Your task to perform on an android device: turn on location history Image 0: 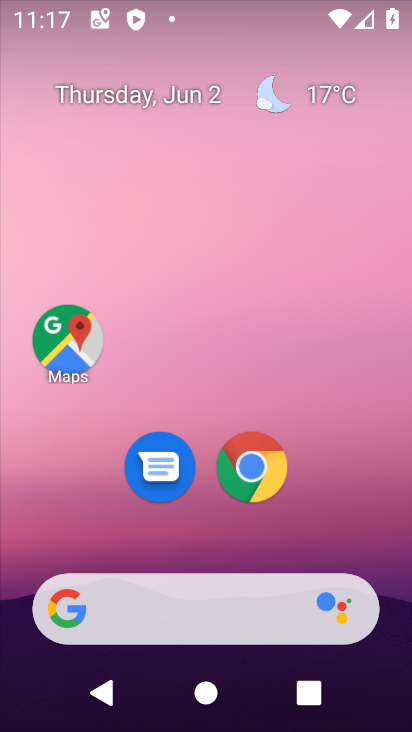
Step 0: drag from (150, 539) to (164, 188)
Your task to perform on an android device: turn on location history Image 1: 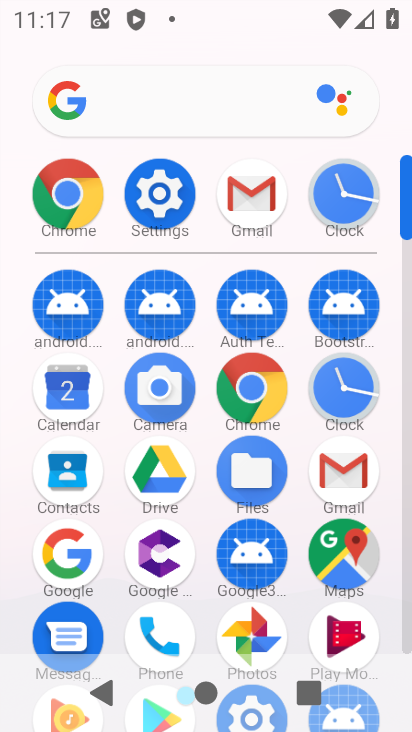
Step 1: click (154, 202)
Your task to perform on an android device: turn on location history Image 2: 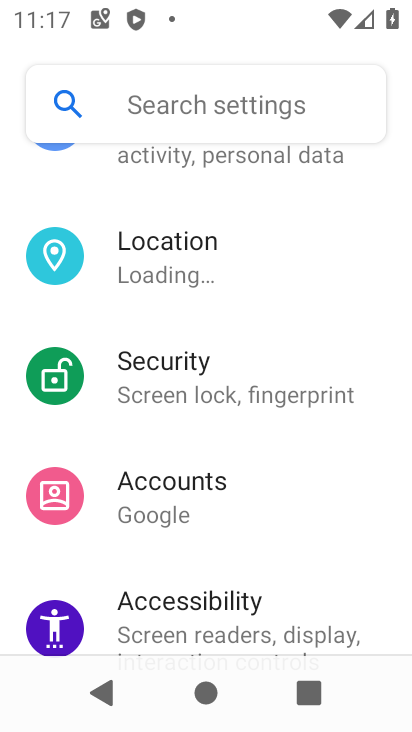
Step 2: click (155, 251)
Your task to perform on an android device: turn on location history Image 3: 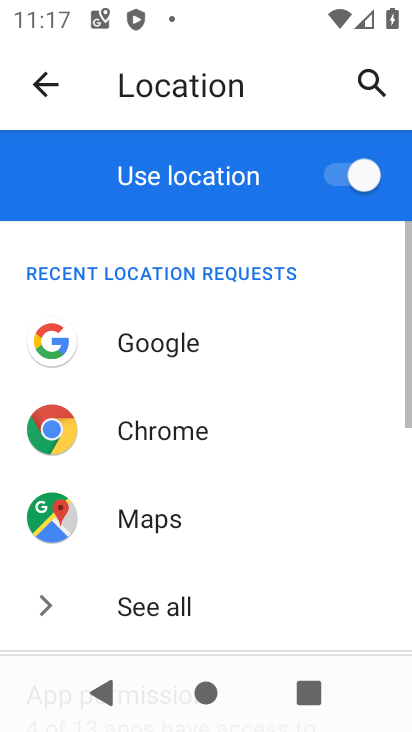
Step 3: drag from (139, 577) to (161, 317)
Your task to perform on an android device: turn on location history Image 4: 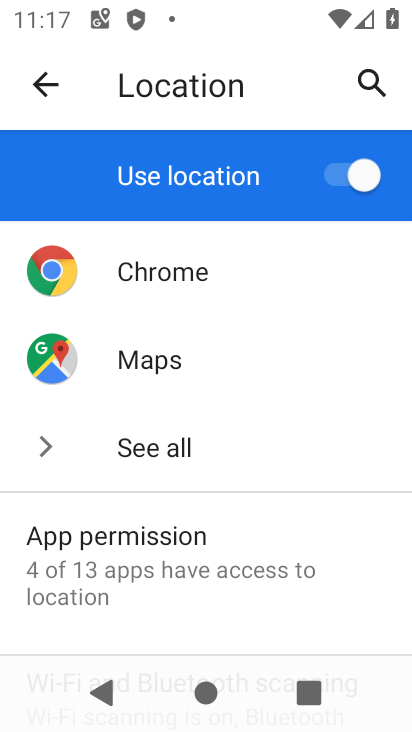
Step 4: drag from (124, 549) to (152, 249)
Your task to perform on an android device: turn on location history Image 5: 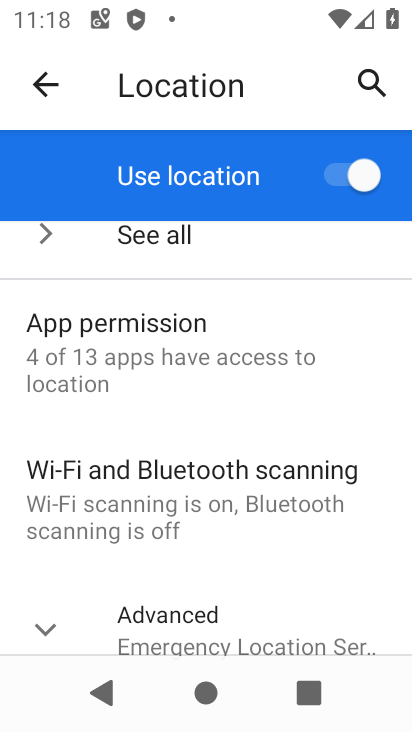
Step 5: click (163, 617)
Your task to perform on an android device: turn on location history Image 6: 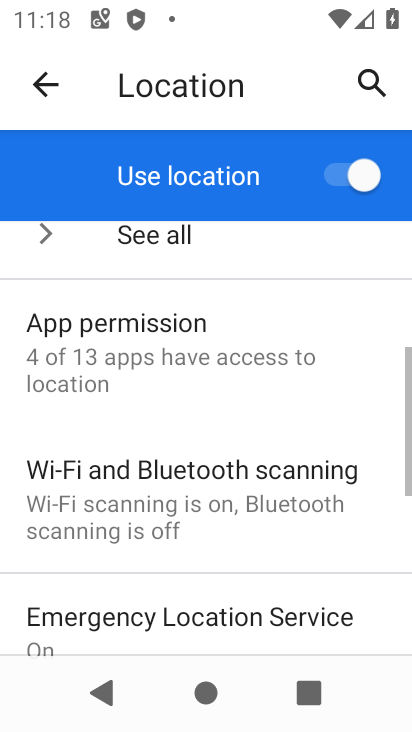
Step 6: drag from (157, 521) to (153, 240)
Your task to perform on an android device: turn on location history Image 7: 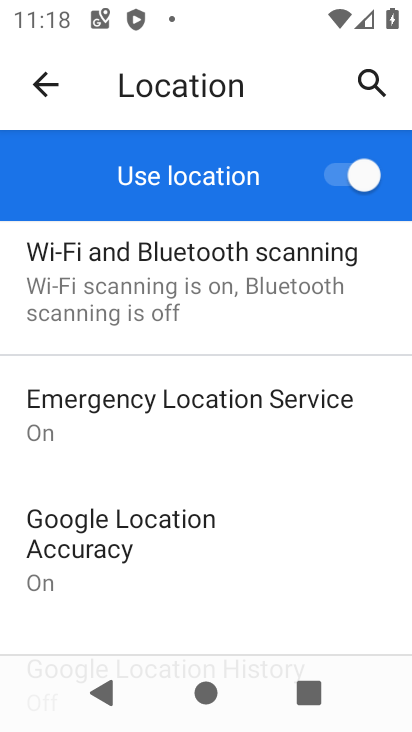
Step 7: drag from (155, 560) to (138, 300)
Your task to perform on an android device: turn on location history Image 8: 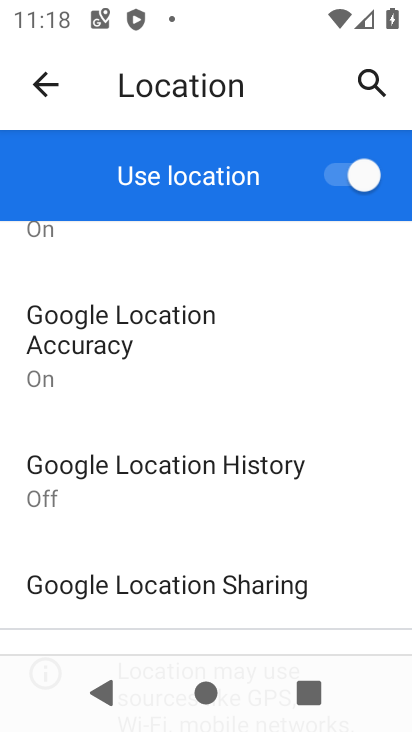
Step 8: click (108, 474)
Your task to perform on an android device: turn on location history Image 9: 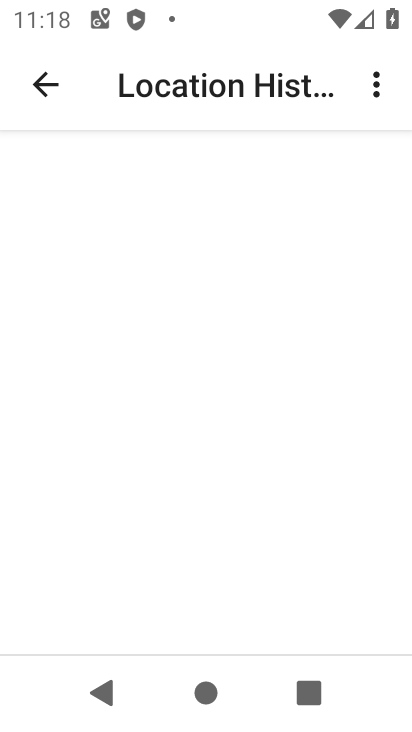
Step 9: drag from (201, 617) to (220, 193)
Your task to perform on an android device: turn on location history Image 10: 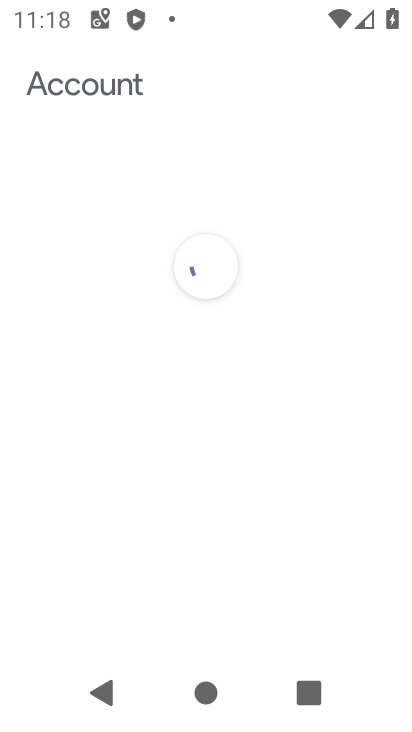
Step 10: drag from (207, 558) to (209, 160)
Your task to perform on an android device: turn on location history Image 11: 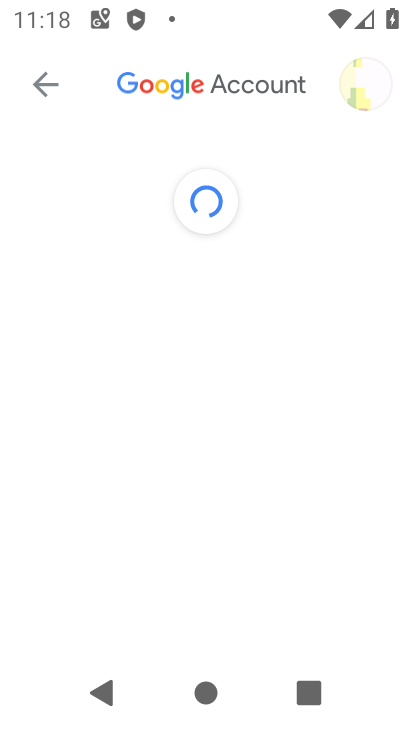
Step 11: drag from (174, 516) to (178, 231)
Your task to perform on an android device: turn on location history Image 12: 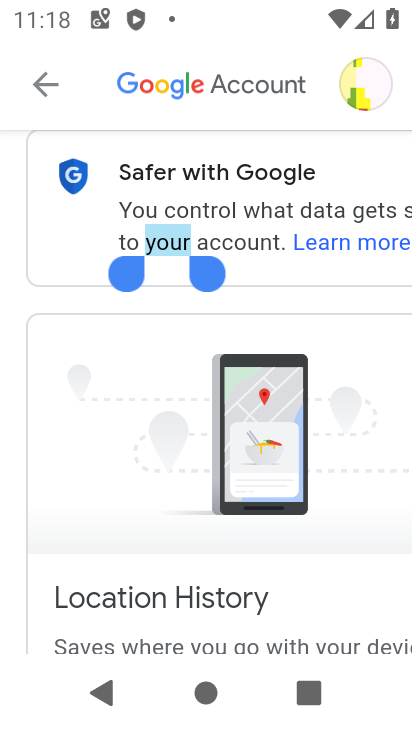
Step 12: drag from (181, 573) to (236, 128)
Your task to perform on an android device: turn on location history Image 13: 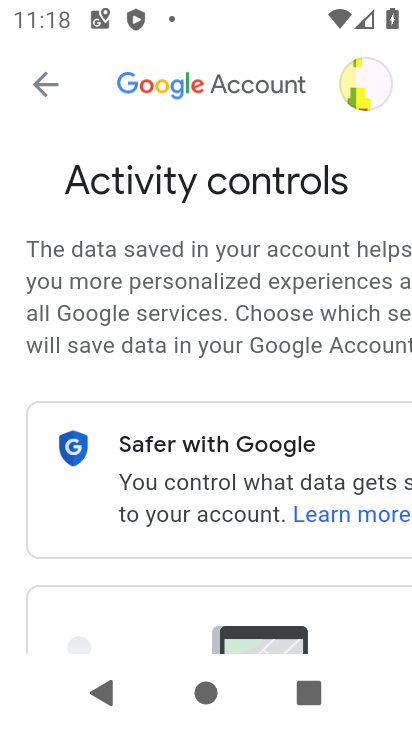
Step 13: drag from (95, 570) to (107, 184)
Your task to perform on an android device: turn on location history Image 14: 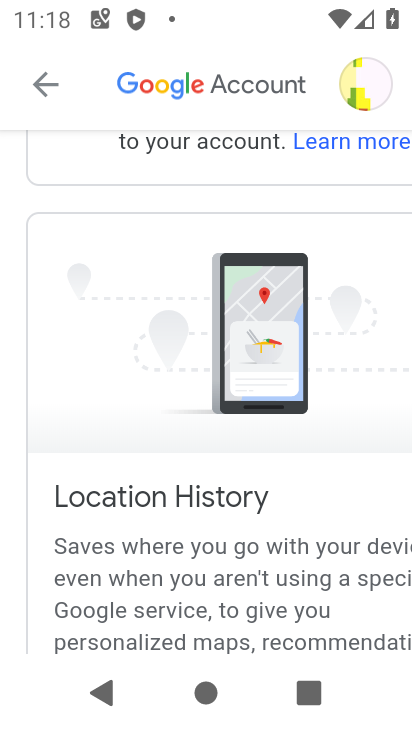
Step 14: drag from (84, 522) to (86, 266)
Your task to perform on an android device: turn on location history Image 15: 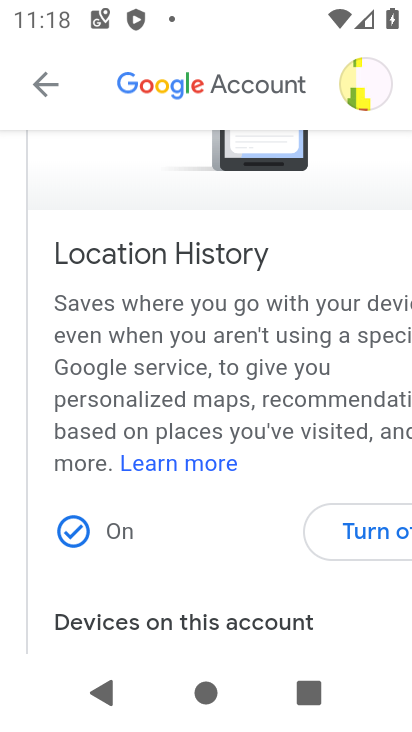
Step 15: click (72, 537)
Your task to perform on an android device: turn on location history Image 16: 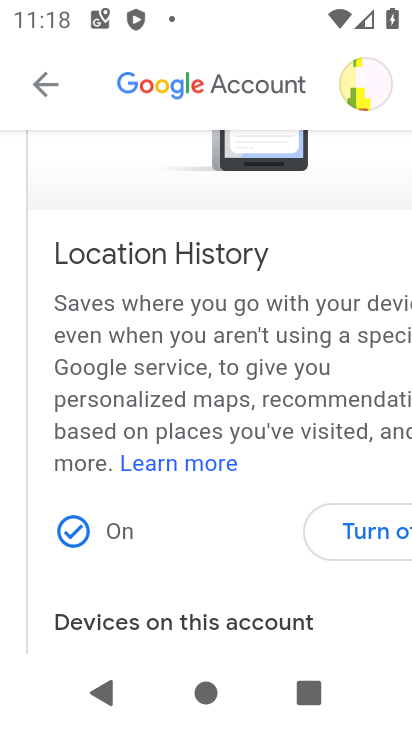
Step 16: click (72, 536)
Your task to perform on an android device: turn on location history Image 17: 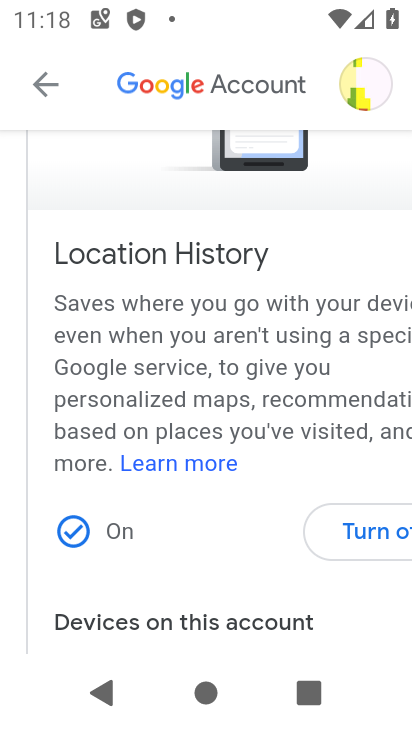
Step 17: click (72, 536)
Your task to perform on an android device: turn on location history Image 18: 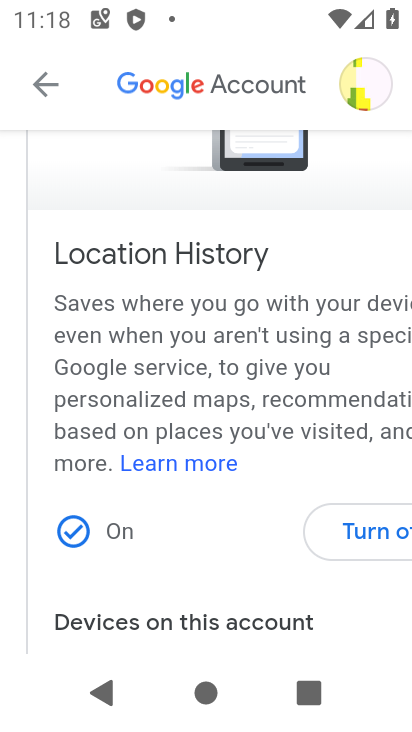
Step 18: click (340, 526)
Your task to perform on an android device: turn on location history Image 19: 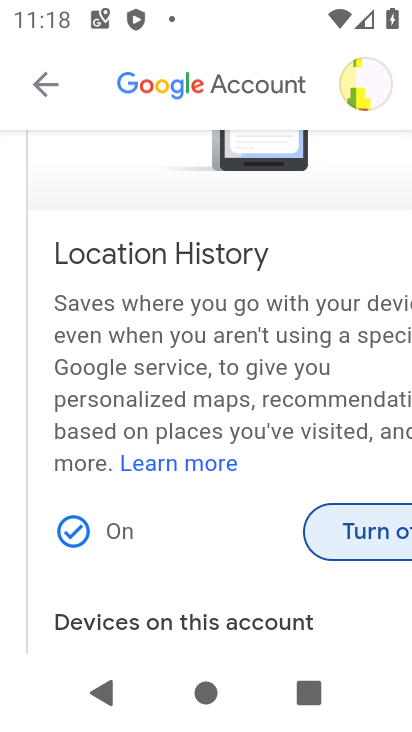
Step 19: task complete